Your task to perform on an android device: star an email in the gmail app Image 0: 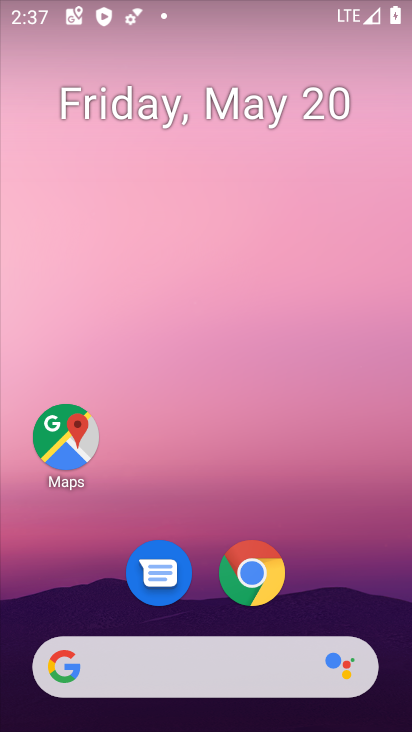
Step 0: drag from (379, 579) to (377, 181)
Your task to perform on an android device: star an email in the gmail app Image 1: 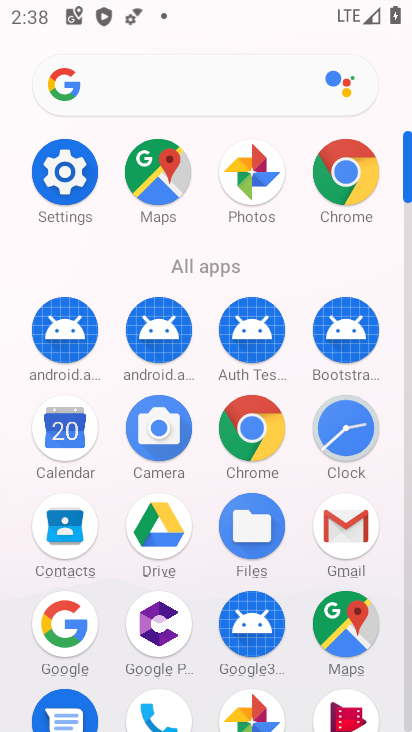
Step 1: click (361, 541)
Your task to perform on an android device: star an email in the gmail app Image 2: 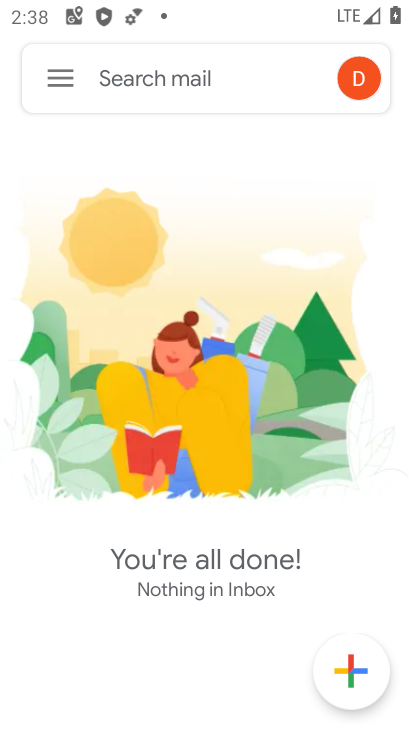
Step 2: click (55, 67)
Your task to perform on an android device: star an email in the gmail app Image 3: 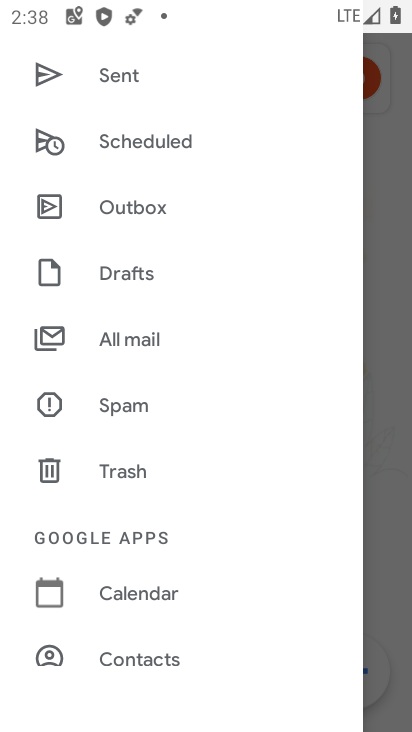
Step 3: click (122, 350)
Your task to perform on an android device: star an email in the gmail app Image 4: 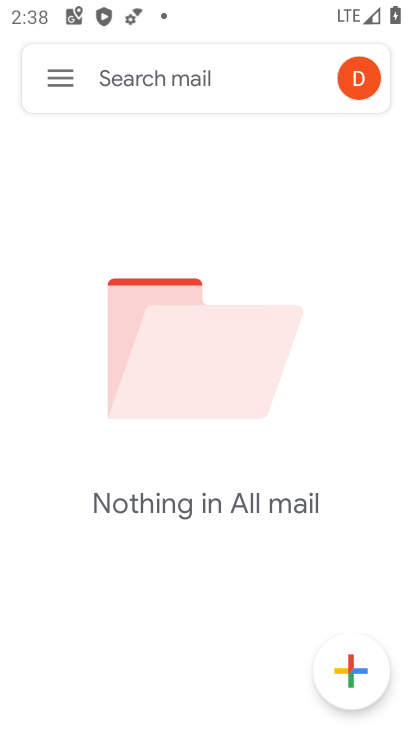
Step 4: task complete